Your task to perform on an android device: change the clock display to analog Image 0: 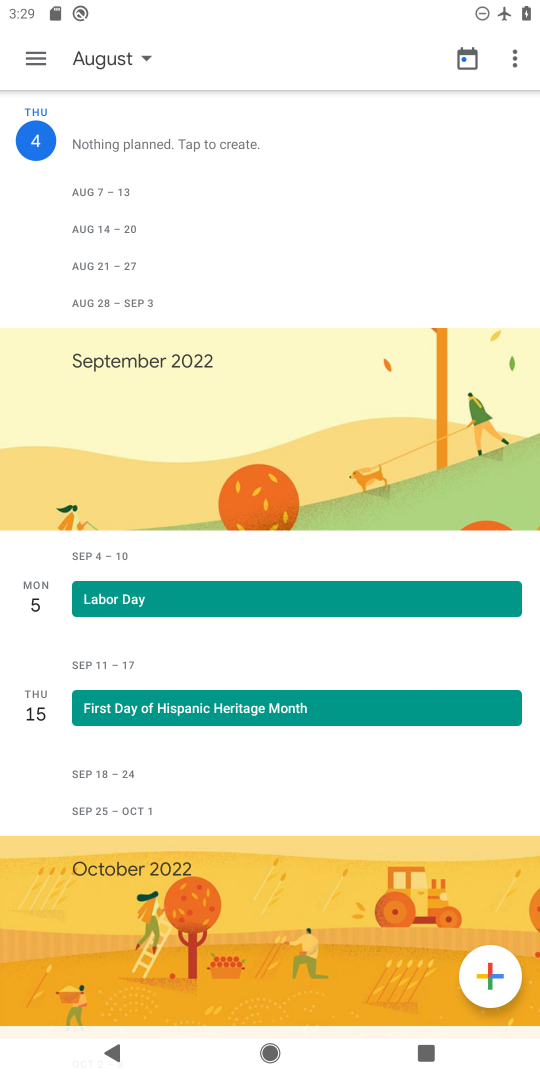
Step 0: press home button
Your task to perform on an android device: change the clock display to analog Image 1: 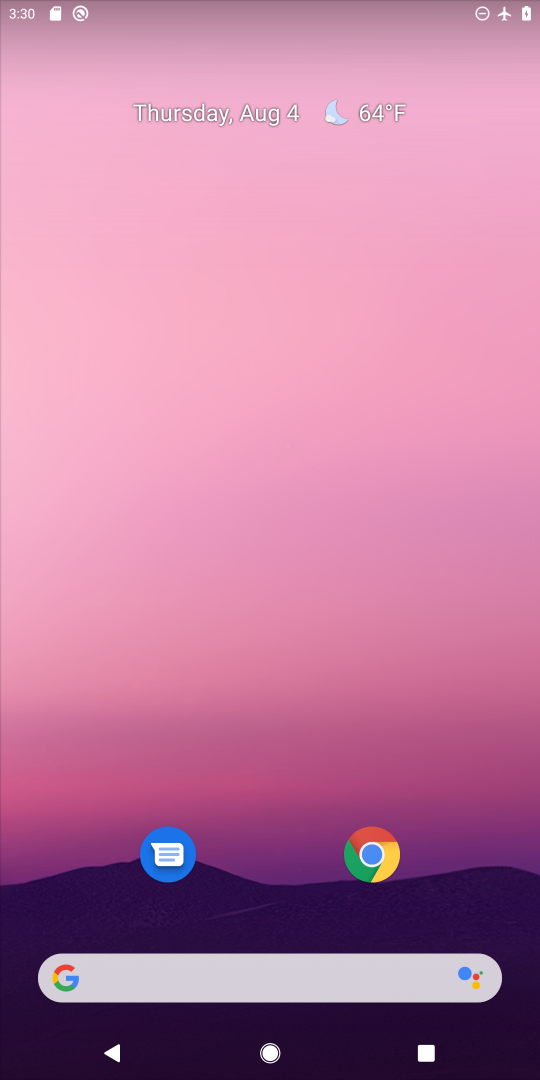
Step 1: drag from (256, 769) to (244, 356)
Your task to perform on an android device: change the clock display to analog Image 2: 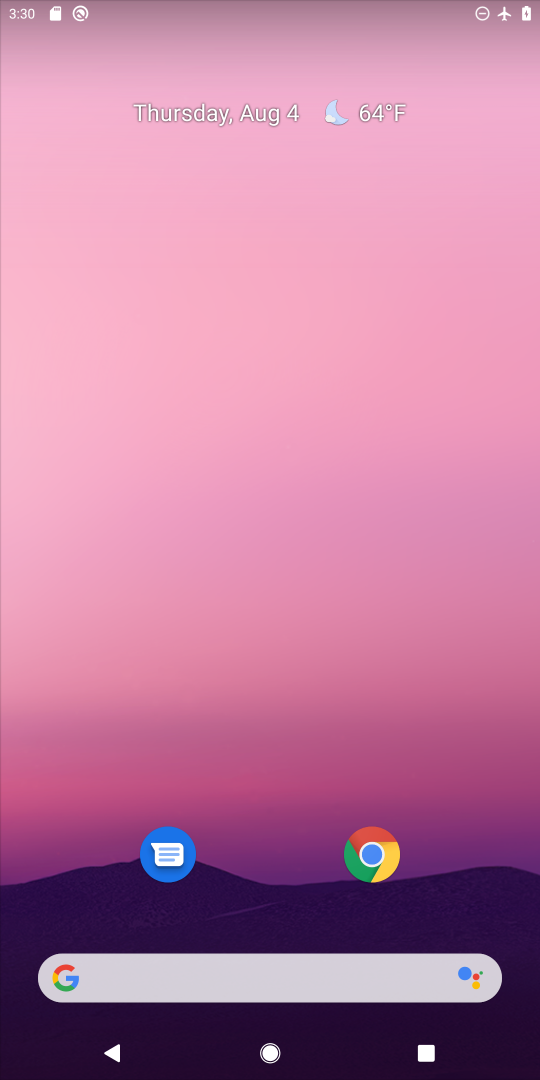
Step 2: drag from (281, 835) to (232, 107)
Your task to perform on an android device: change the clock display to analog Image 3: 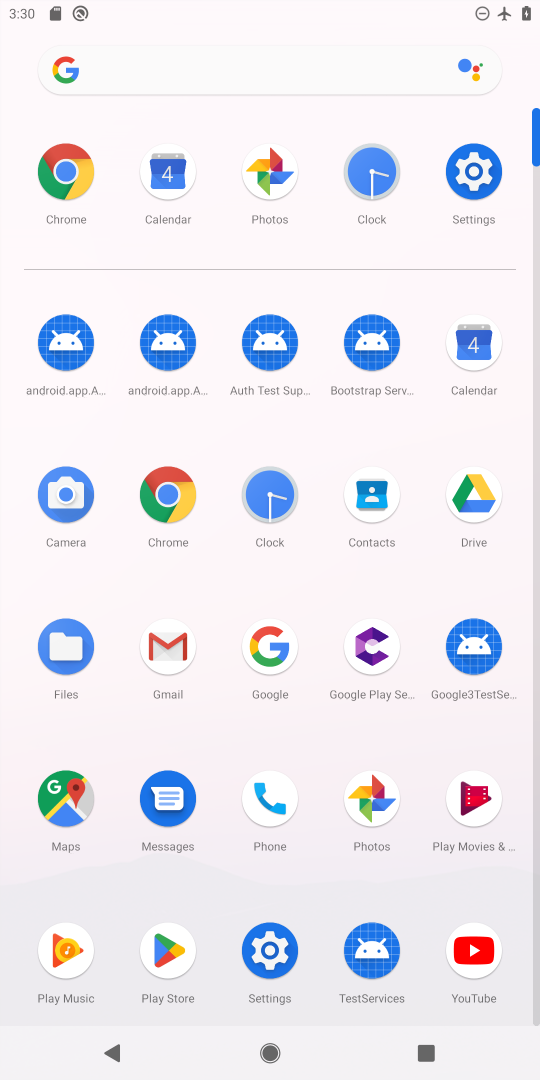
Step 3: click (368, 168)
Your task to perform on an android device: change the clock display to analog Image 4: 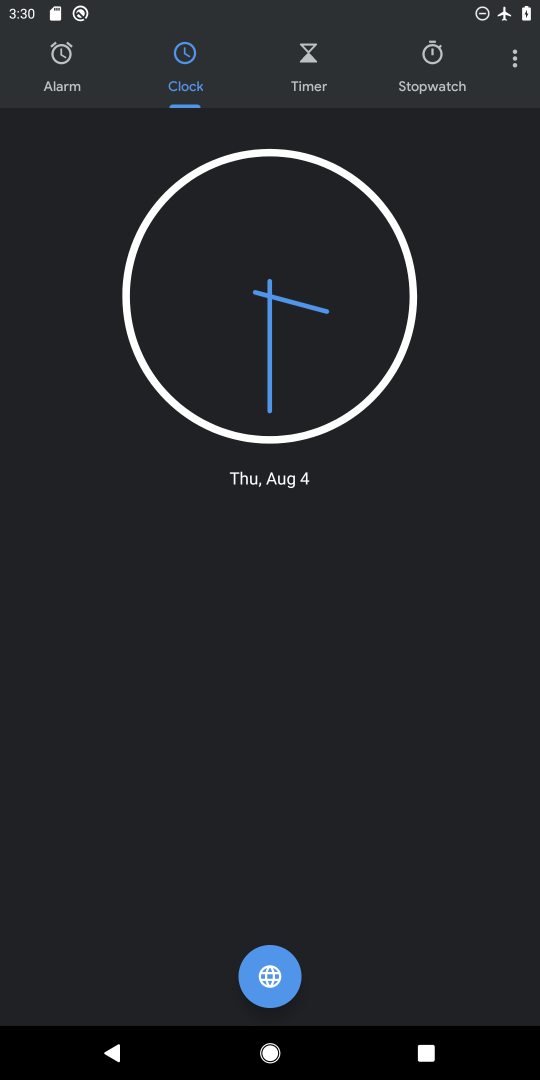
Step 4: task complete